Your task to perform on an android device: change keyboard looks Image 0: 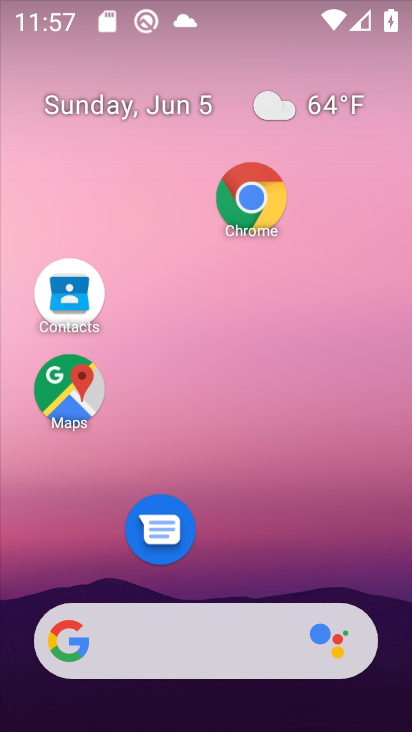
Step 0: drag from (289, 513) to (271, 3)
Your task to perform on an android device: change keyboard looks Image 1: 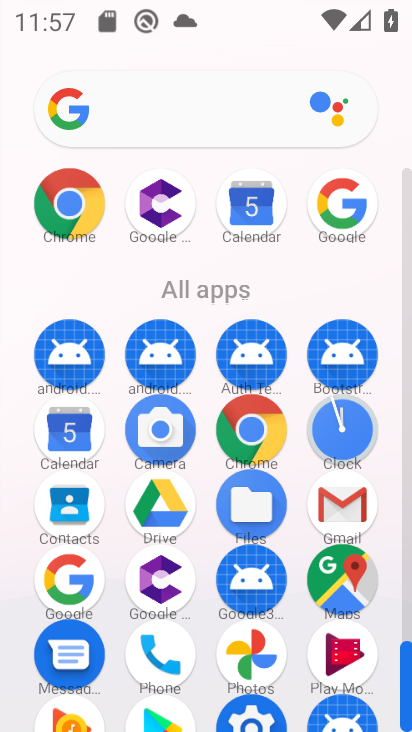
Step 1: click (251, 707)
Your task to perform on an android device: change keyboard looks Image 2: 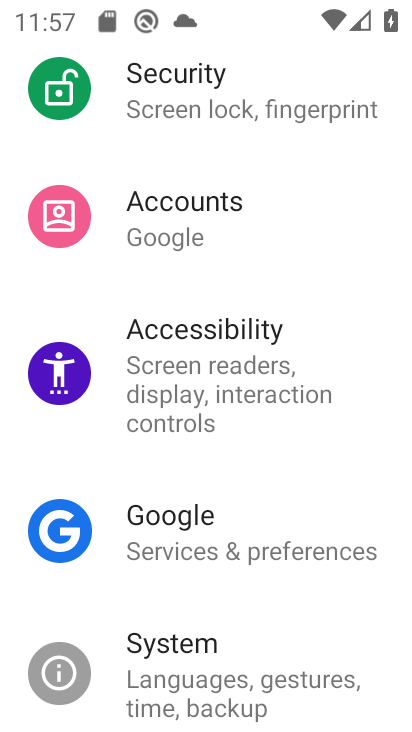
Step 2: click (222, 664)
Your task to perform on an android device: change keyboard looks Image 3: 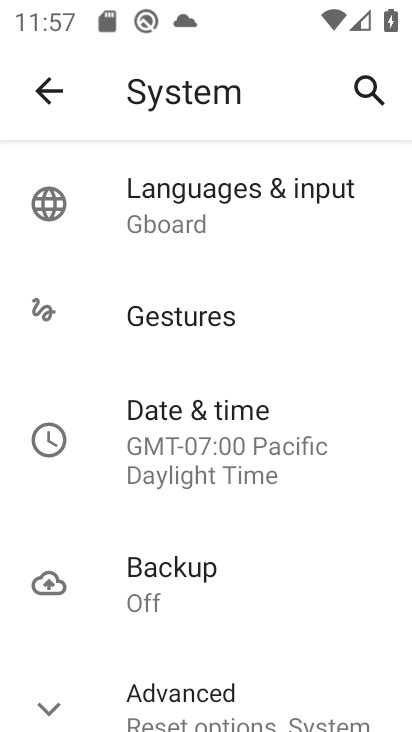
Step 3: click (216, 209)
Your task to perform on an android device: change keyboard looks Image 4: 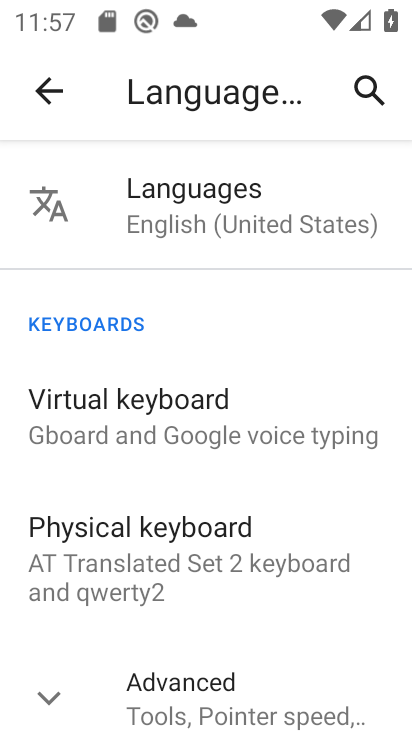
Step 4: click (166, 426)
Your task to perform on an android device: change keyboard looks Image 5: 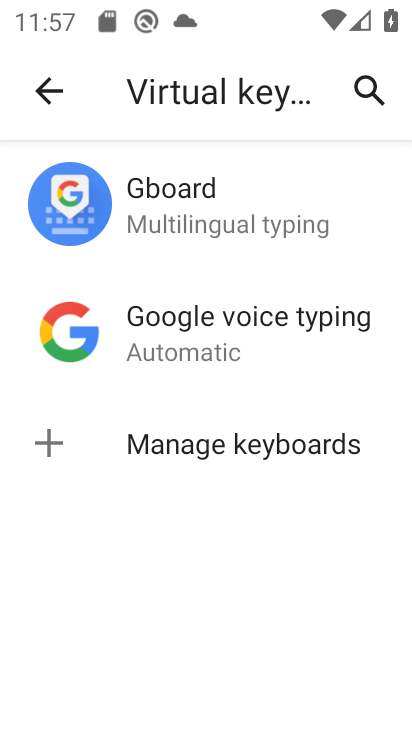
Step 5: click (226, 222)
Your task to perform on an android device: change keyboard looks Image 6: 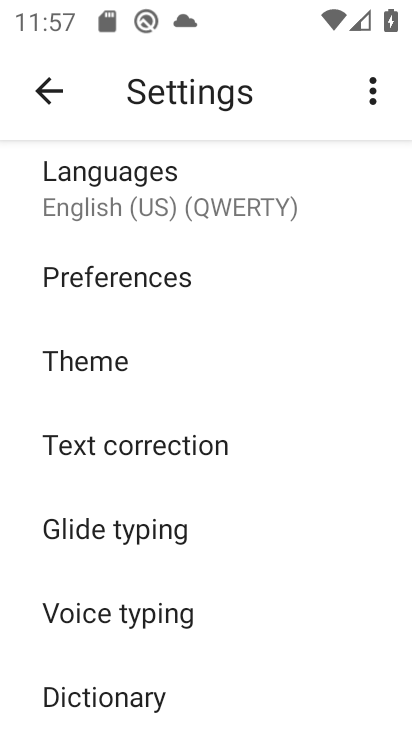
Step 6: click (121, 371)
Your task to perform on an android device: change keyboard looks Image 7: 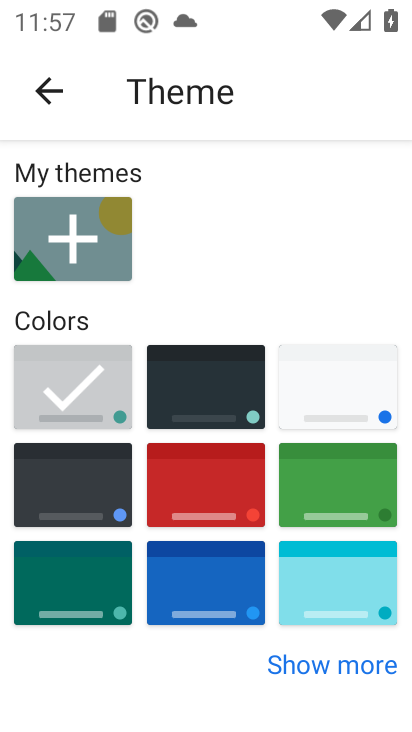
Step 7: click (191, 376)
Your task to perform on an android device: change keyboard looks Image 8: 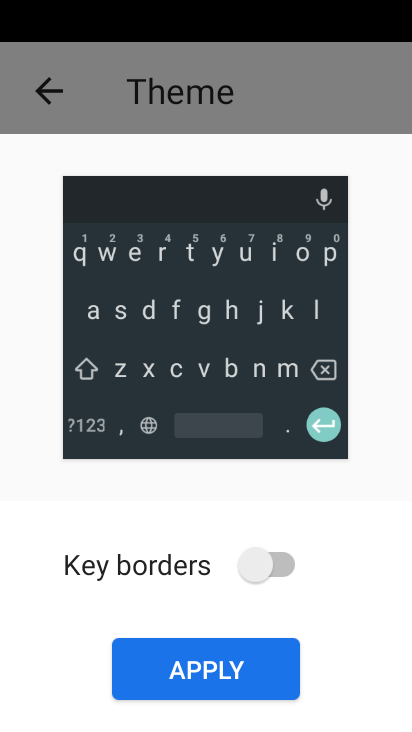
Step 8: click (226, 671)
Your task to perform on an android device: change keyboard looks Image 9: 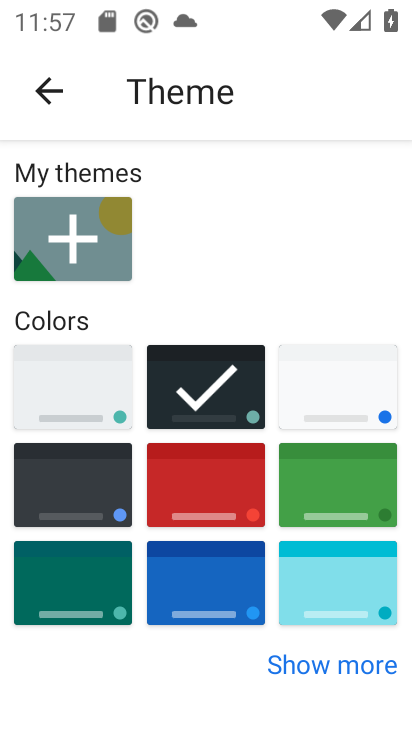
Step 9: task complete